Your task to perform on an android device: turn off improve location accuracy Image 0: 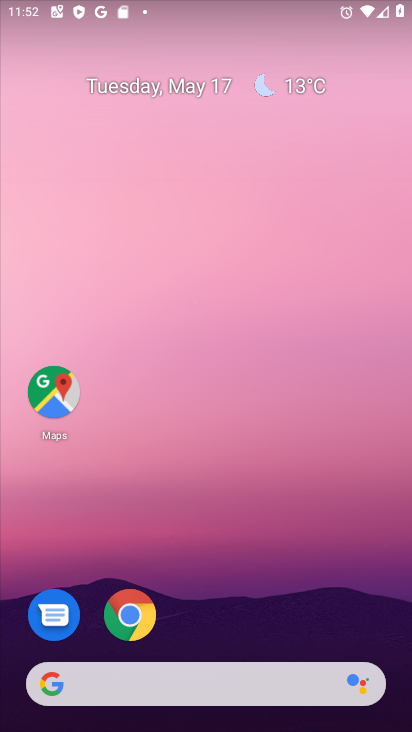
Step 0: drag from (276, 571) to (230, 112)
Your task to perform on an android device: turn off improve location accuracy Image 1: 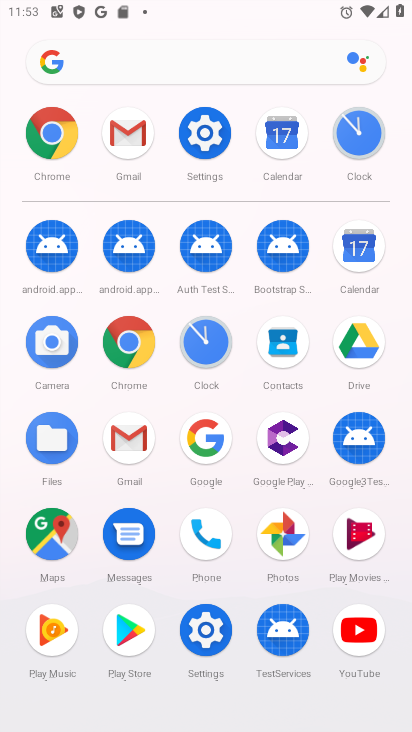
Step 1: click (212, 122)
Your task to perform on an android device: turn off improve location accuracy Image 2: 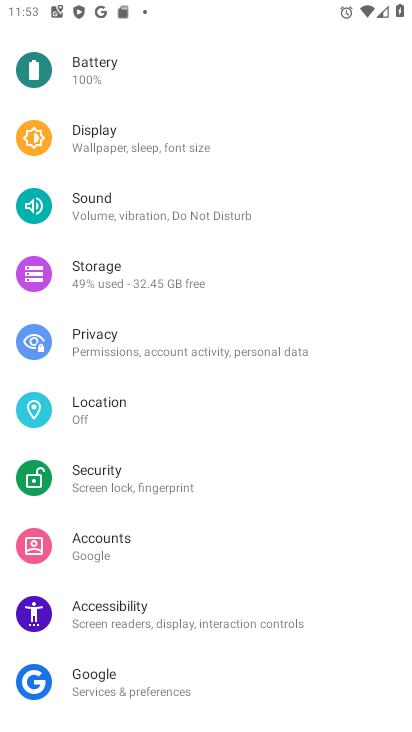
Step 2: drag from (202, 122) to (273, 554)
Your task to perform on an android device: turn off improve location accuracy Image 3: 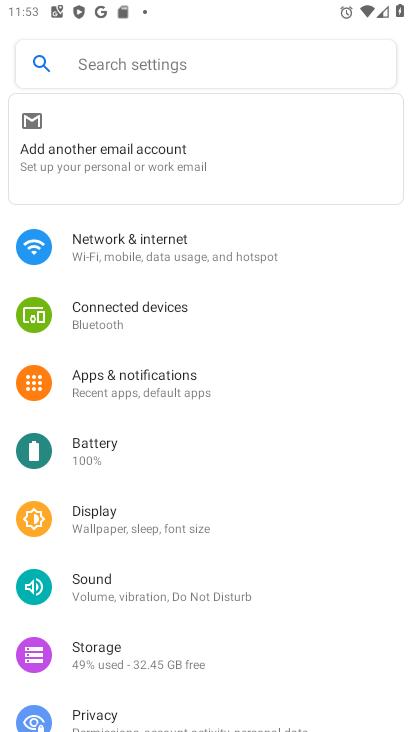
Step 3: drag from (258, 513) to (281, 118)
Your task to perform on an android device: turn off improve location accuracy Image 4: 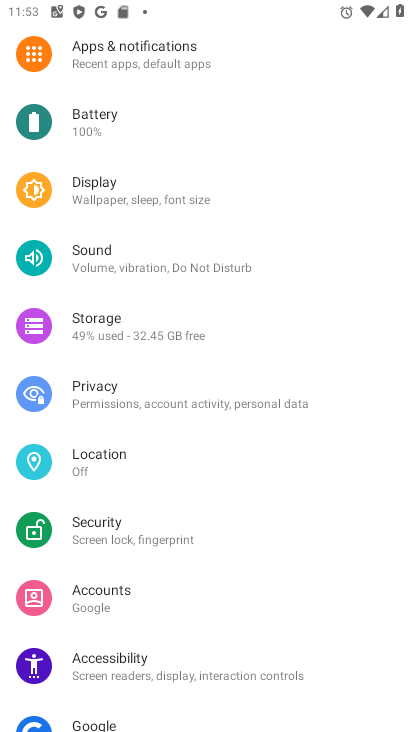
Step 4: drag from (235, 544) to (244, 357)
Your task to perform on an android device: turn off improve location accuracy Image 5: 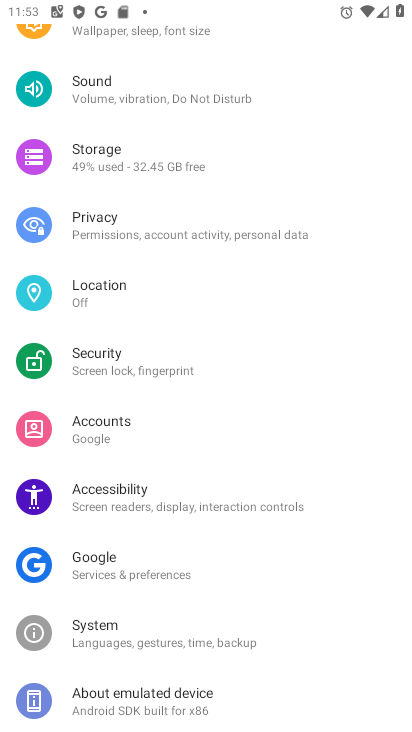
Step 5: click (116, 290)
Your task to perform on an android device: turn off improve location accuracy Image 6: 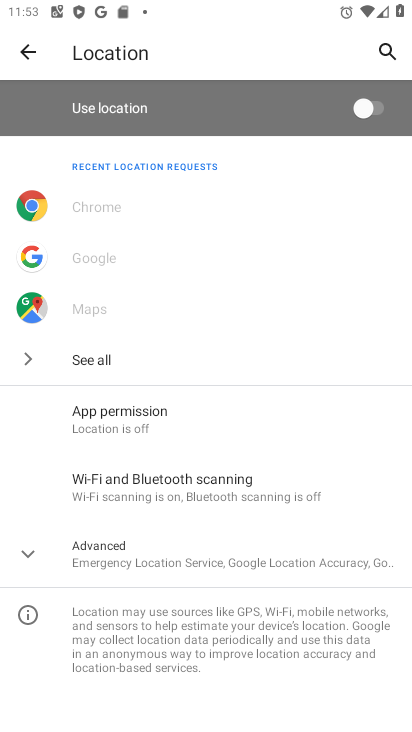
Step 6: click (218, 556)
Your task to perform on an android device: turn off improve location accuracy Image 7: 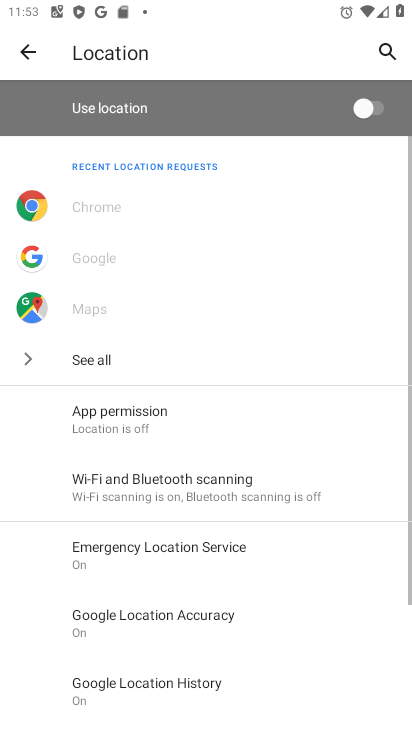
Step 7: drag from (274, 575) to (332, 172)
Your task to perform on an android device: turn off improve location accuracy Image 8: 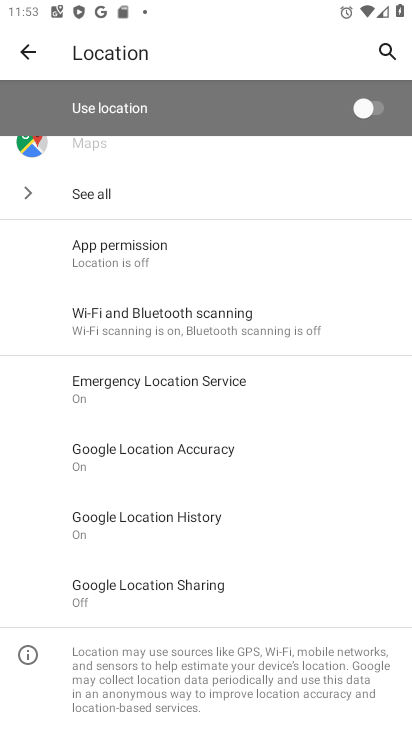
Step 8: click (210, 460)
Your task to perform on an android device: turn off improve location accuracy Image 9: 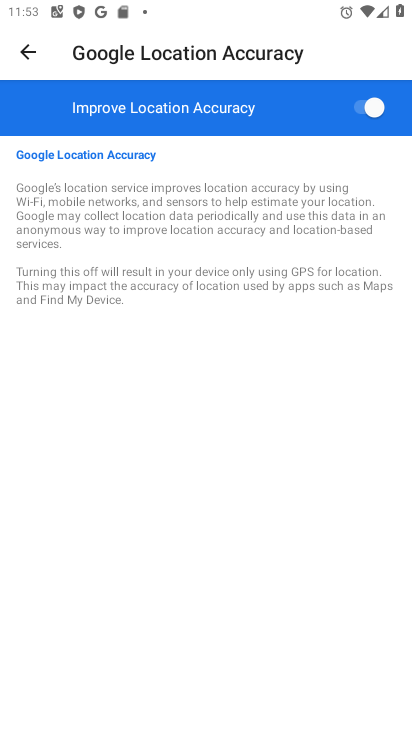
Step 9: click (368, 99)
Your task to perform on an android device: turn off improve location accuracy Image 10: 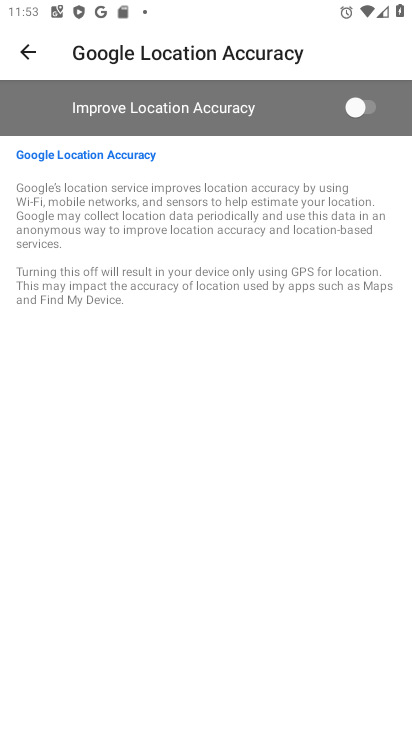
Step 10: task complete